Your task to perform on an android device: turn smart compose on in the gmail app Image 0: 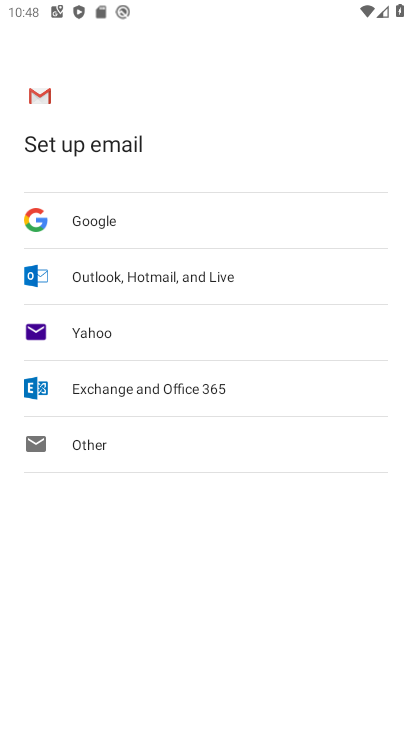
Step 0: press home button
Your task to perform on an android device: turn smart compose on in the gmail app Image 1: 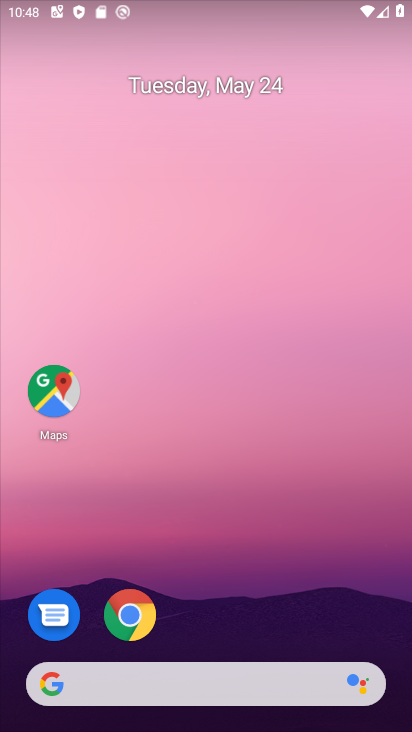
Step 1: drag from (286, 586) to (284, 89)
Your task to perform on an android device: turn smart compose on in the gmail app Image 2: 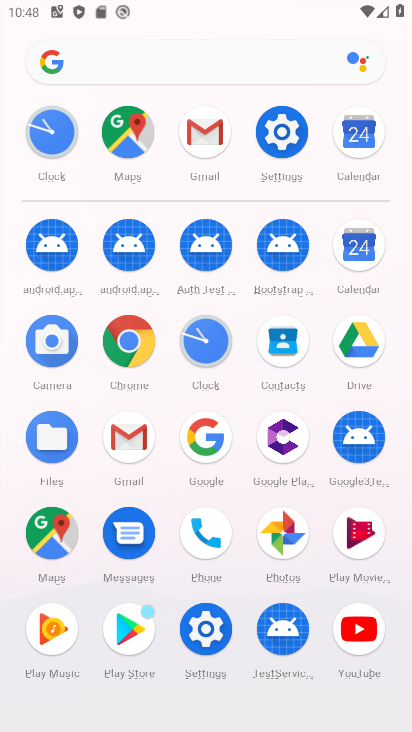
Step 2: click (203, 146)
Your task to perform on an android device: turn smart compose on in the gmail app Image 3: 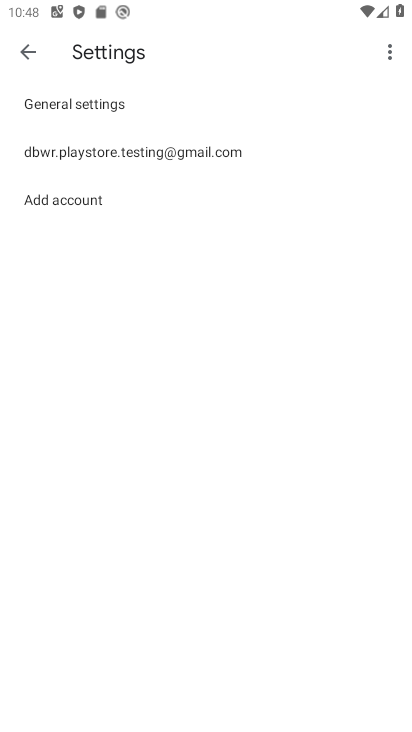
Step 3: press back button
Your task to perform on an android device: turn smart compose on in the gmail app Image 4: 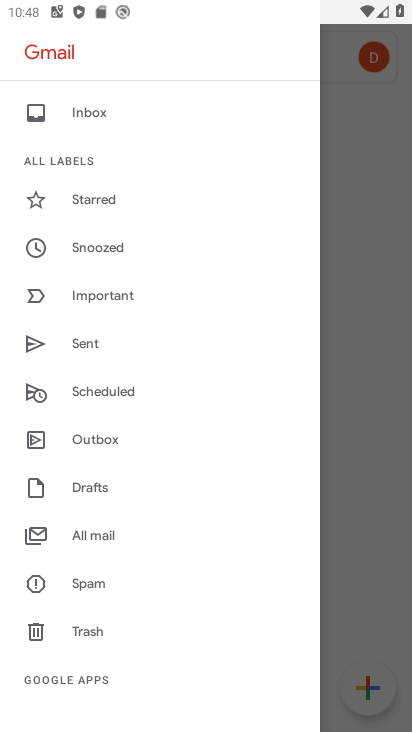
Step 4: drag from (144, 634) to (222, 224)
Your task to perform on an android device: turn smart compose on in the gmail app Image 5: 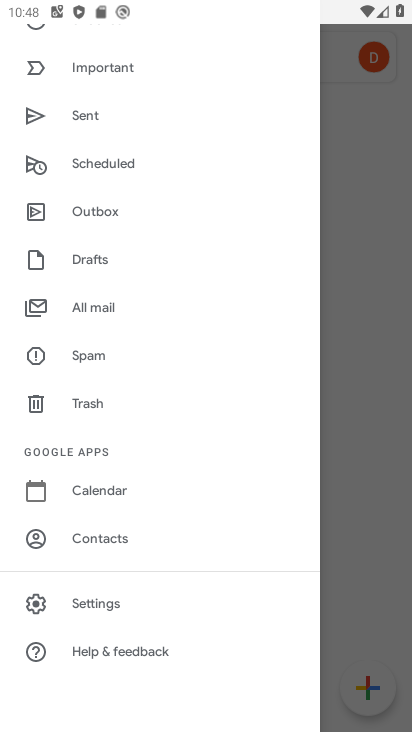
Step 5: click (166, 597)
Your task to perform on an android device: turn smart compose on in the gmail app Image 6: 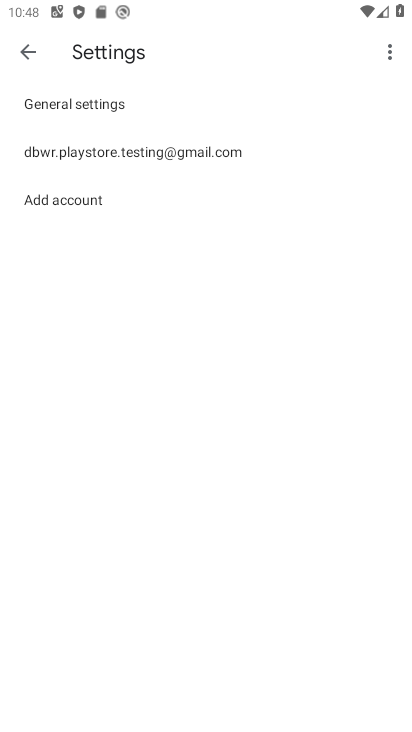
Step 6: press back button
Your task to perform on an android device: turn smart compose on in the gmail app Image 7: 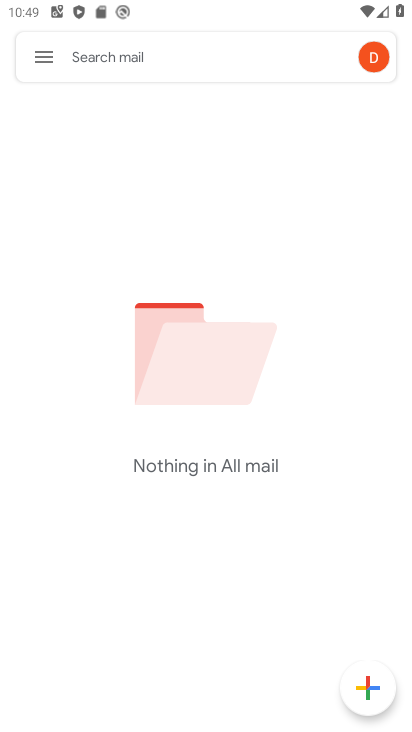
Step 7: click (39, 69)
Your task to perform on an android device: turn smart compose on in the gmail app Image 8: 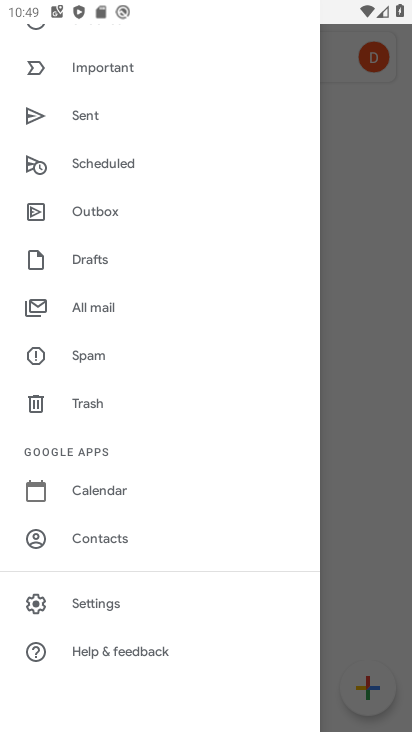
Step 8: task complete